Your task to perform on an android device: Do I have any events today? Image 0: 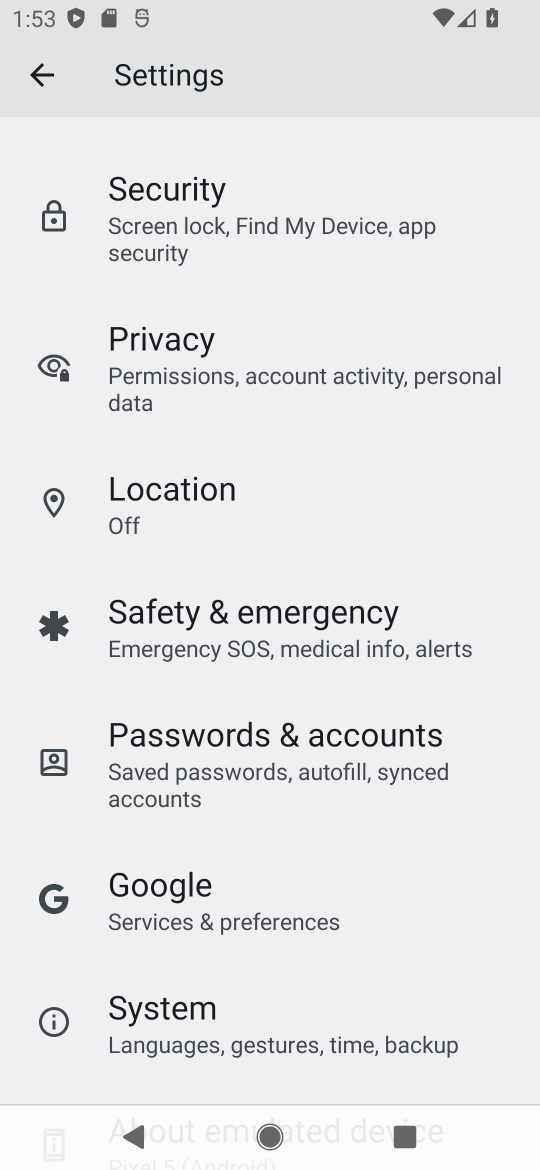
Step 0: press home button
Your task to perform on an android device: Do I have any events today? Image 1: 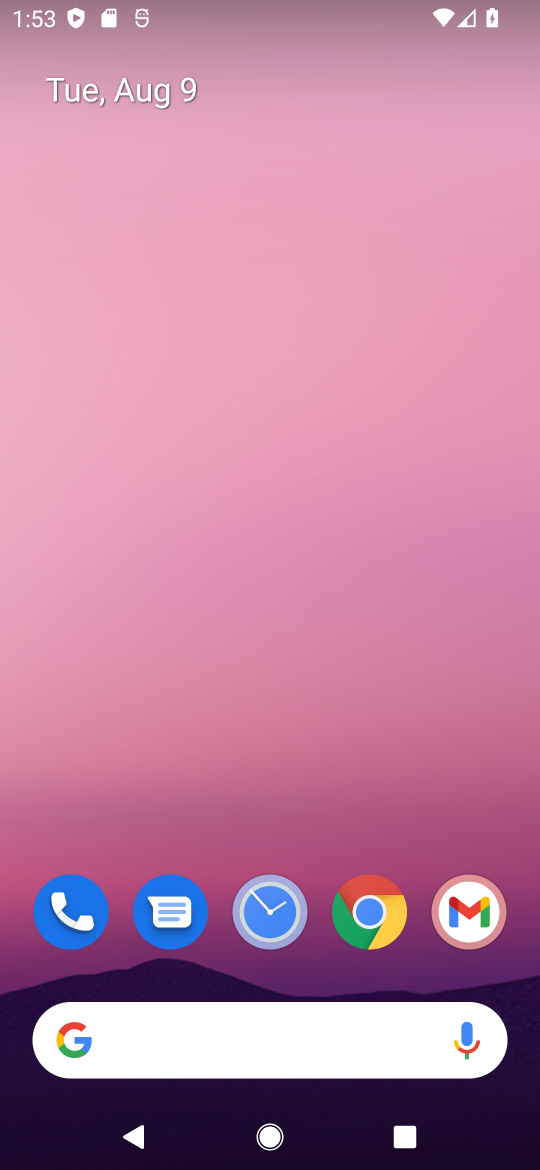
Step 1: drag from (273, 779) to (297, 253)
Your task to perform on an android device: Do I have any events today? Image 2: 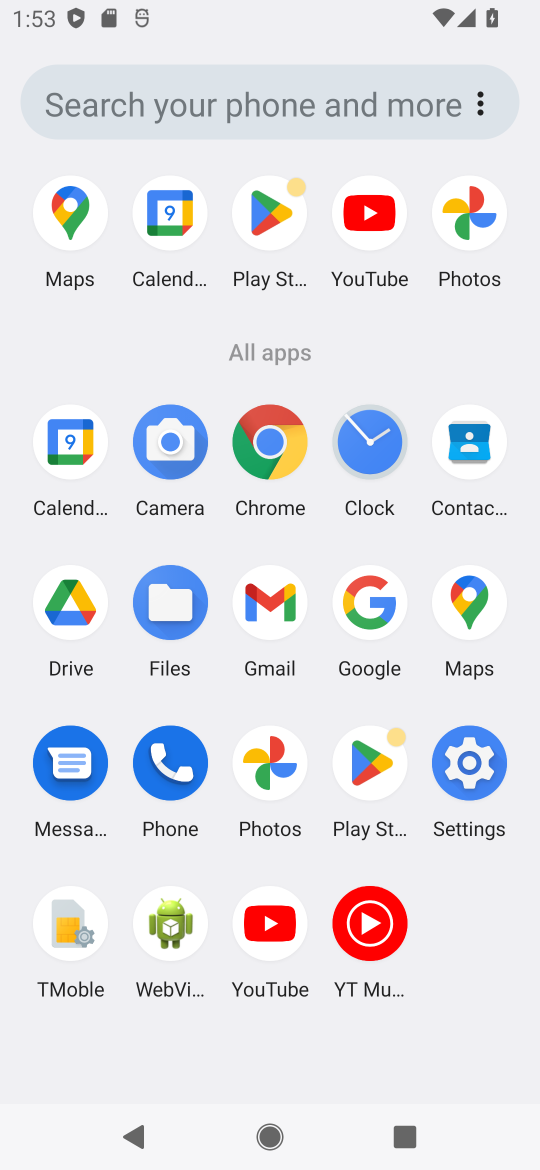
Step 2: click (168, 198)
Your task to perform on an android device: Do I have any events today? Image 3: 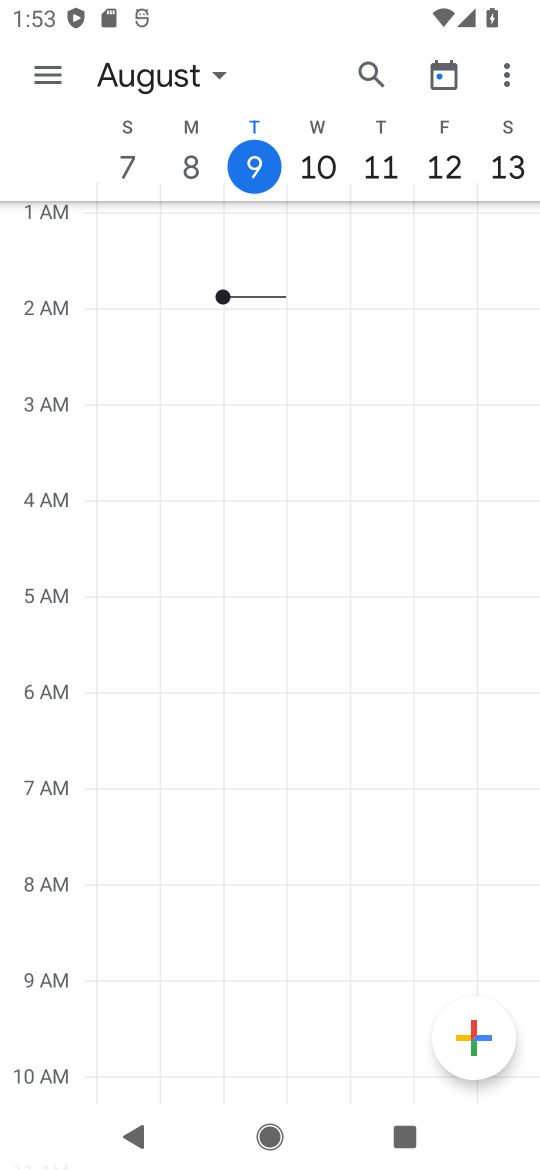
Step 3: click (247, 166)
Your task to perform on an android device: Do I have any events today? Image 4: 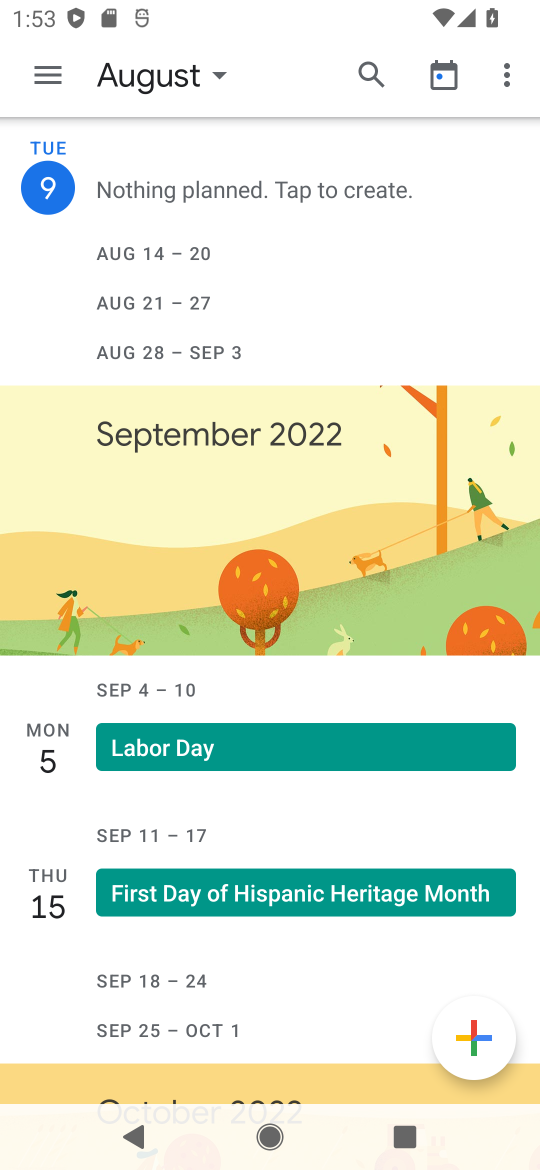
Step 4: click (44, 65)
Your task to perform on an android device: Do I have any events today? Image 5: 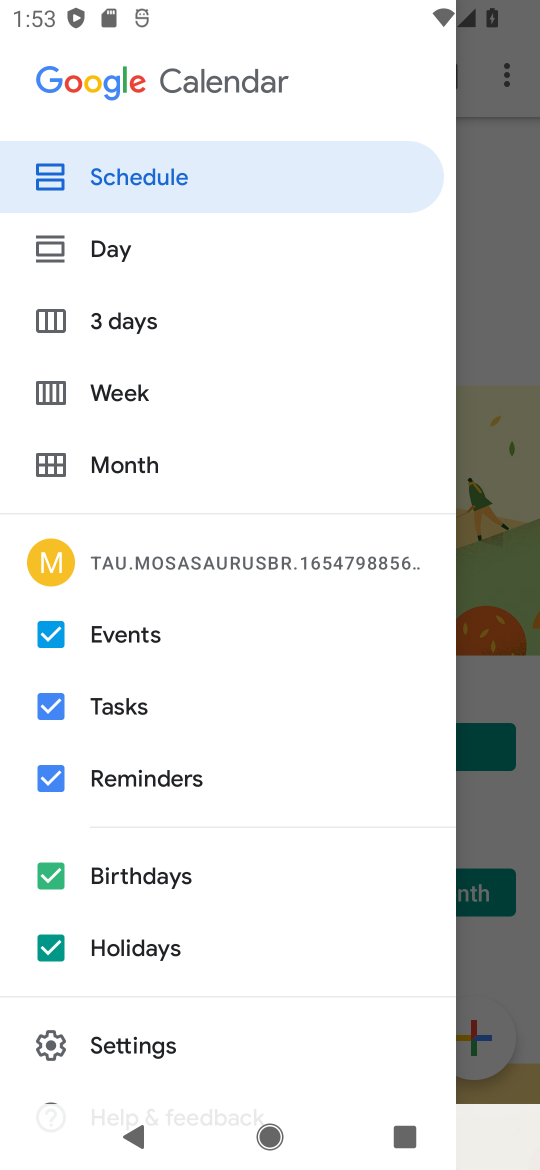
Step 5: click (118, 241)
Your task to perform on an android device: Do I have any events today? Image 6: 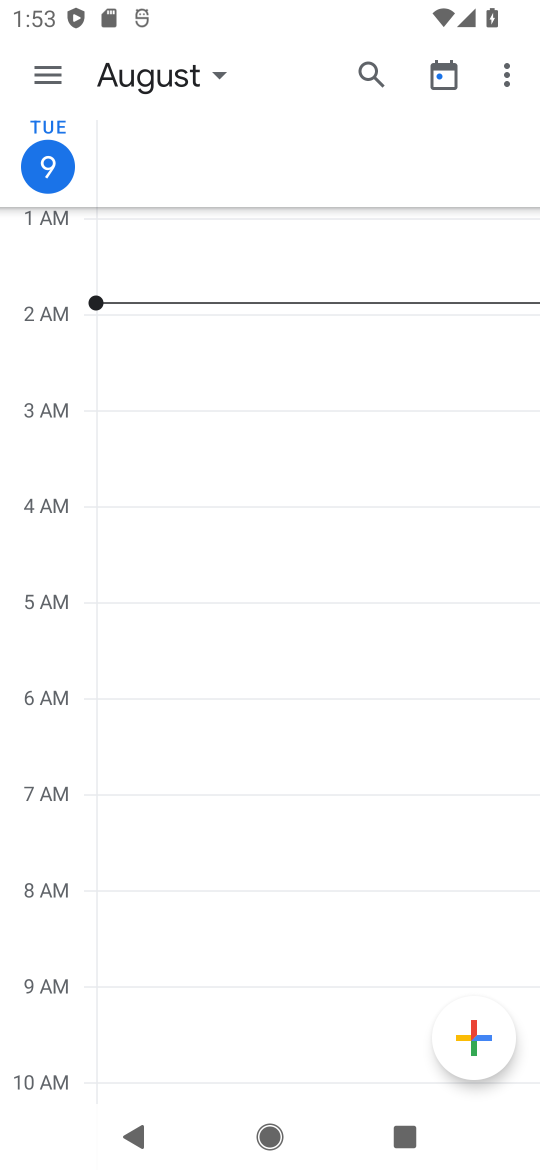
Step 6: task complete